Your task to perform on an android device: What is the news today? Image 0: 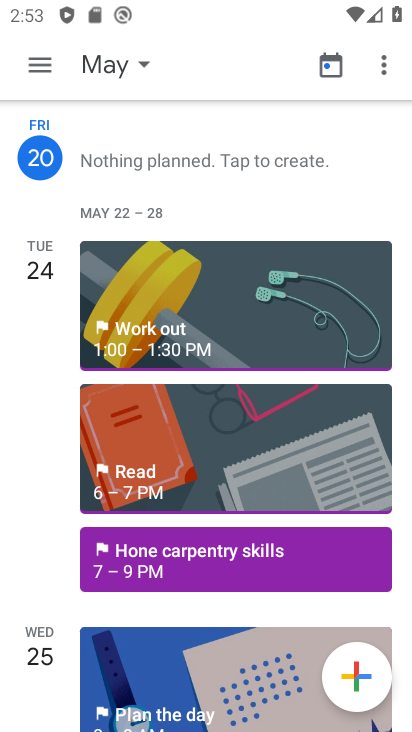
Step 0: press home button
Your task to perform on an android device: What is the news today? Image 1: 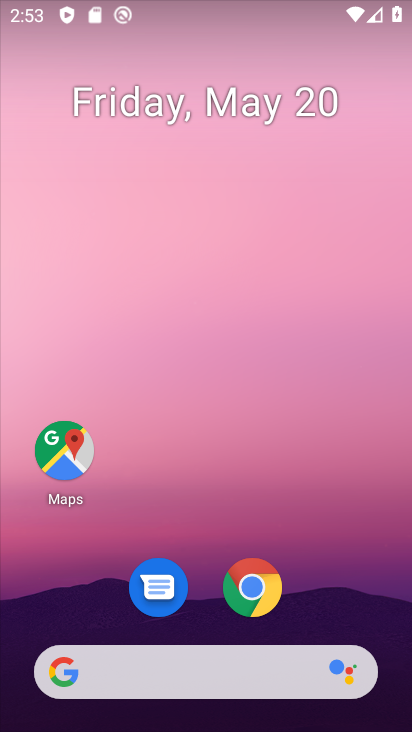
Step 1: click (257, 588)
Your task to perform on an android device: What is the news today? Image 2: 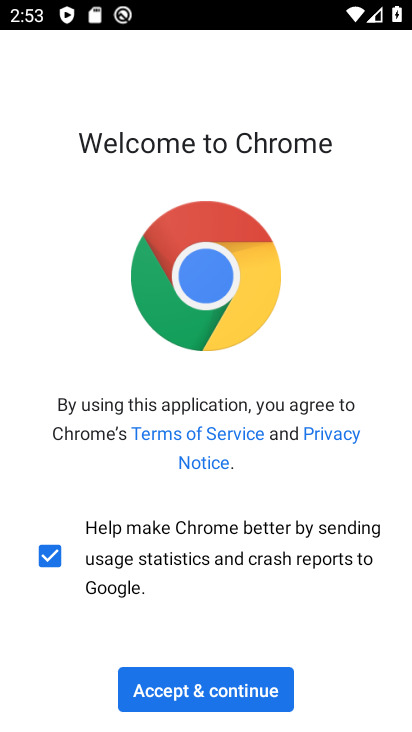
Step 2: click (227, 683)
Your task to perform on an android device: What is the news today? Image 3: 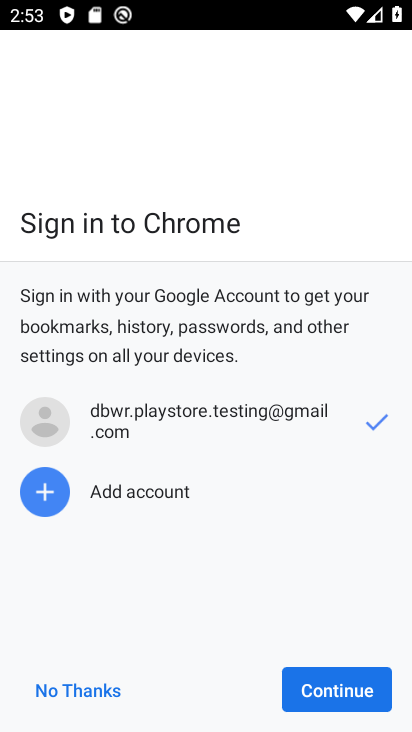
Step 3: click (316, 701)
Your task to perform on an android device: What is the news today? Image 4: 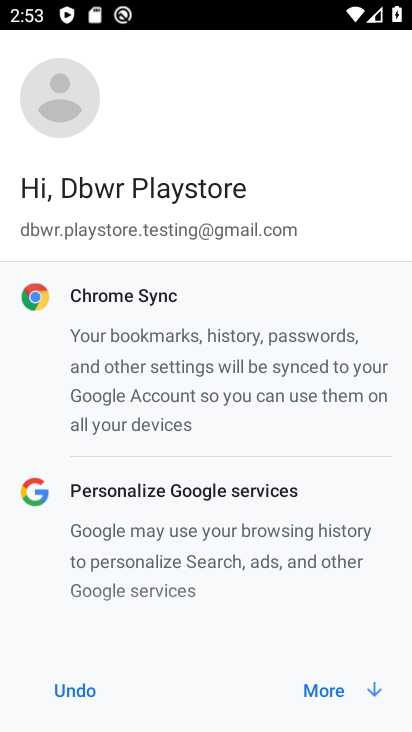
Step 4: click (316, 701)
Your task to perform on an android device: What is the news today? Image 5: 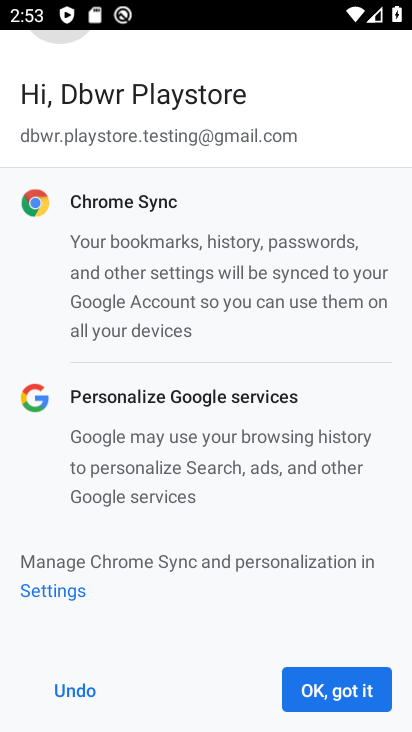
Step 5: click (316, 701)
Your task to perform on an android device: What is the news today? Image 6: 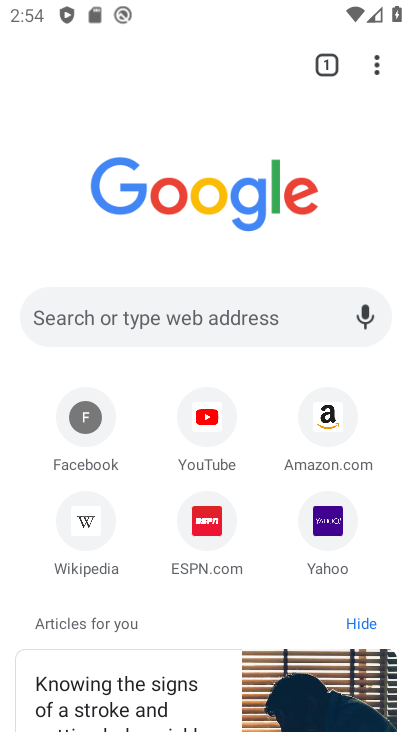
Step 6: click (229, 321)
Your task to perform on an android device: What is the news today? Image 7: 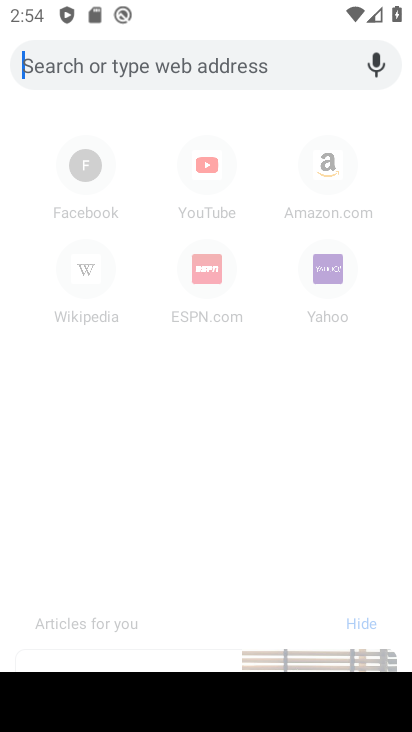
Step 7: type "What is the news today?"
Your task to perform on an android device: What is the news today? Image 8: 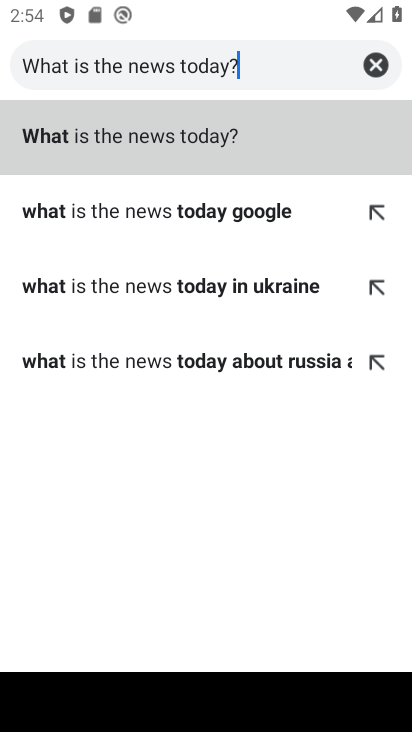
Step 8: click (184, 134)
Your task to perform on an android device: What is the news today? Image 9: 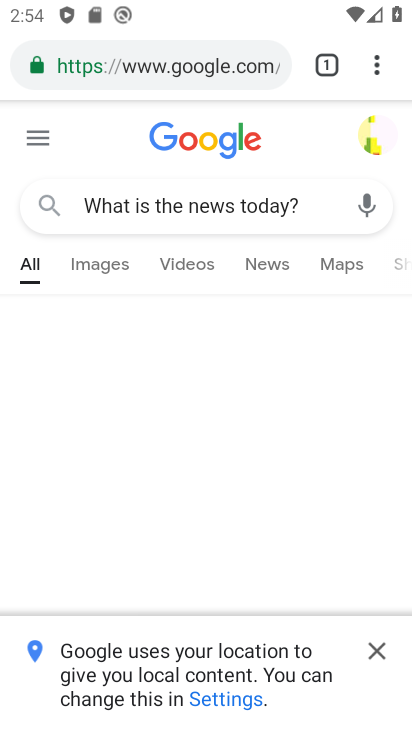
Step 9: click (376, 651)
Your task to perform on an android device: What is the news today? Image 10: 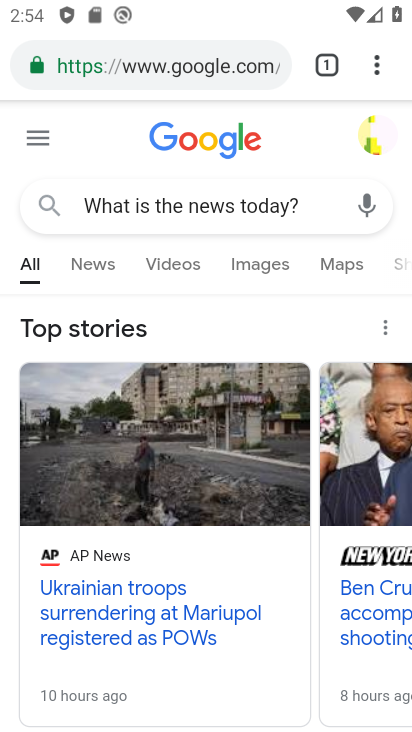
Step 10: task complete